Your task to perform on an android device: set the stopwatch Image 0: 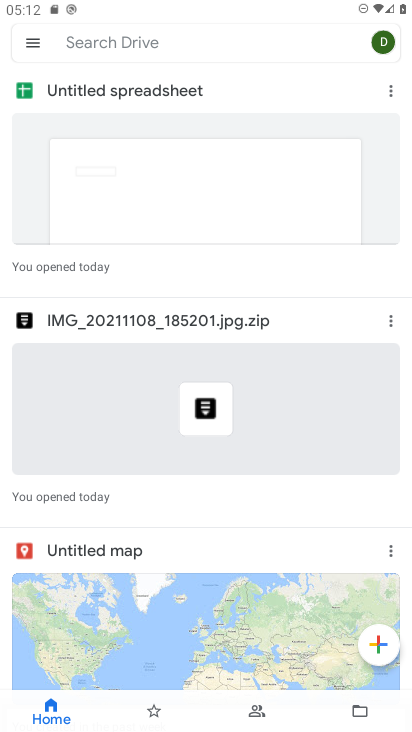
Step 0: press home button
Your task to perform on an android device: set the stopwatch Image 1: 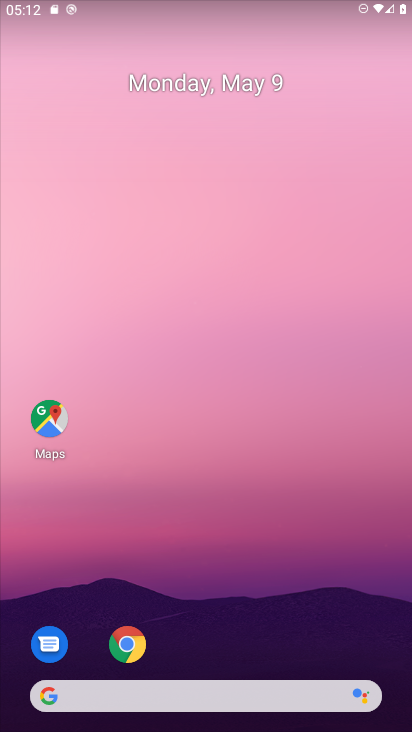
Step 1: drag from (234, 616) to (209, 51)
Your task to perform on an android device: set the stopwatch Image 2: 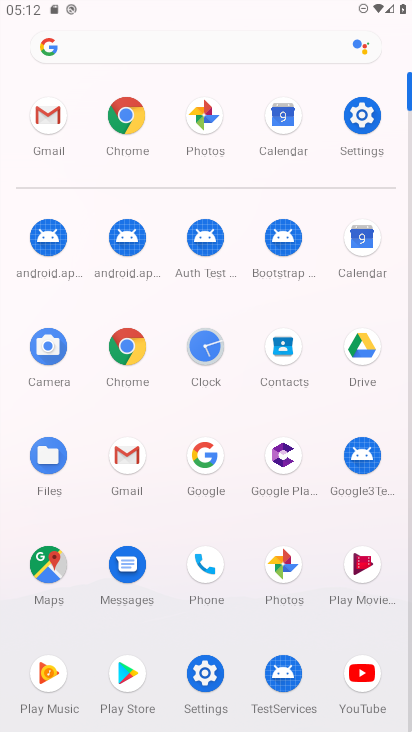
Step 2: click (208, 352)
Your task to perform on an android device: set the stopwatch Image 3: 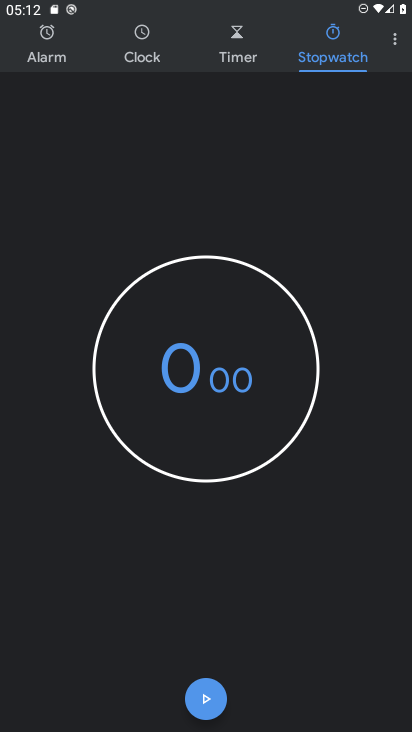
Step 3: click (207, 686)
Your task to perform on an android device: set the stopwatch Image 4: 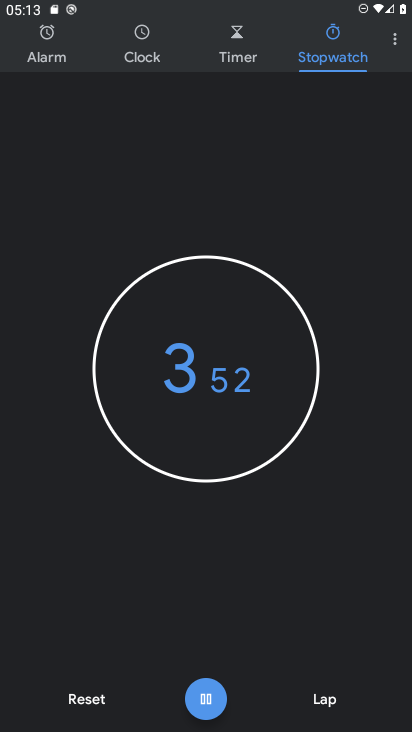
Step 4: click (243, 389)
Your task to perform on an android device: set the stopwatch Image 5: 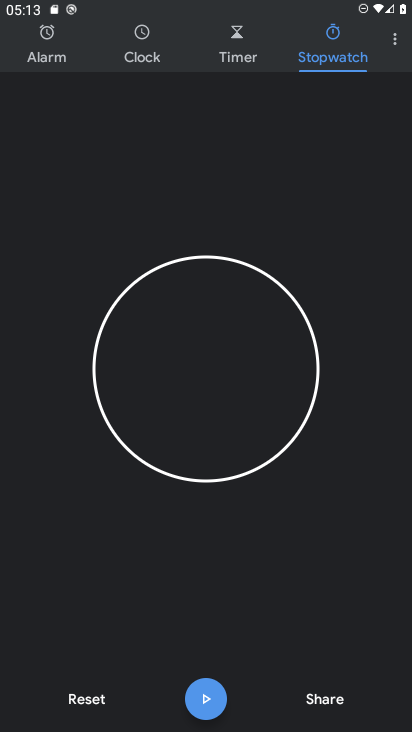
Step 5: task complete